Your task to perform on an android device: View the shopping cart on costco.com. Image 0: 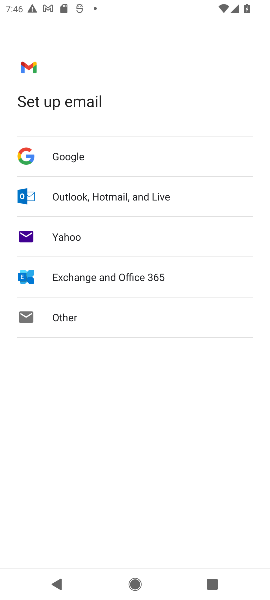
Step 0: press home button
Your task to perform on an android device: View the shopping cart on costco.com. Image 1: 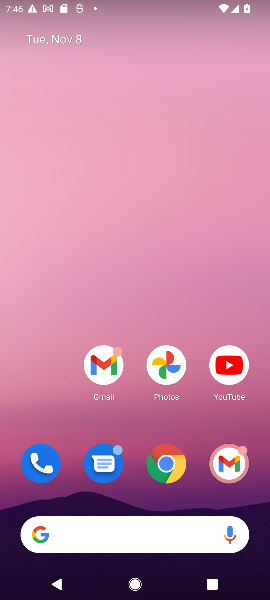
Step 1: click (163, 464)
Your task to perform on an android device: View the shopping cart on costco.com. Image 2: 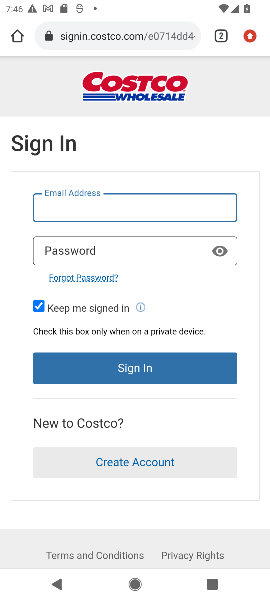
Step 2: click (150, 87)
Your task to perform on an android device: View the shopping cart on costco.com. Image 3: 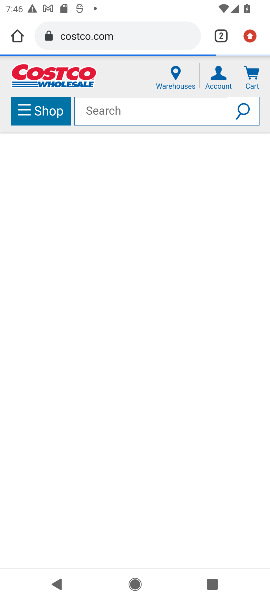
Step 3: click (249, 67)
Your task to perform on an android device: View the shopping cart on costco.com. Image 4: 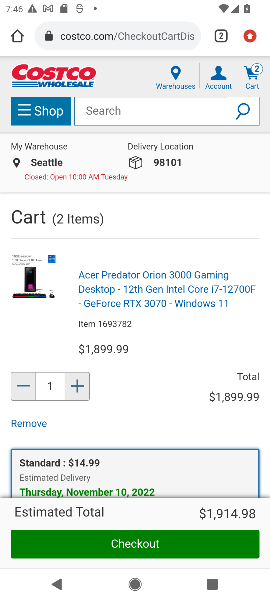
Step 4: task complete